Your task to perform on an android device: Clear all items from cart on walmart. Search for "razer blade" on walmart, select the first entry, and add it to the cart. Image 0: 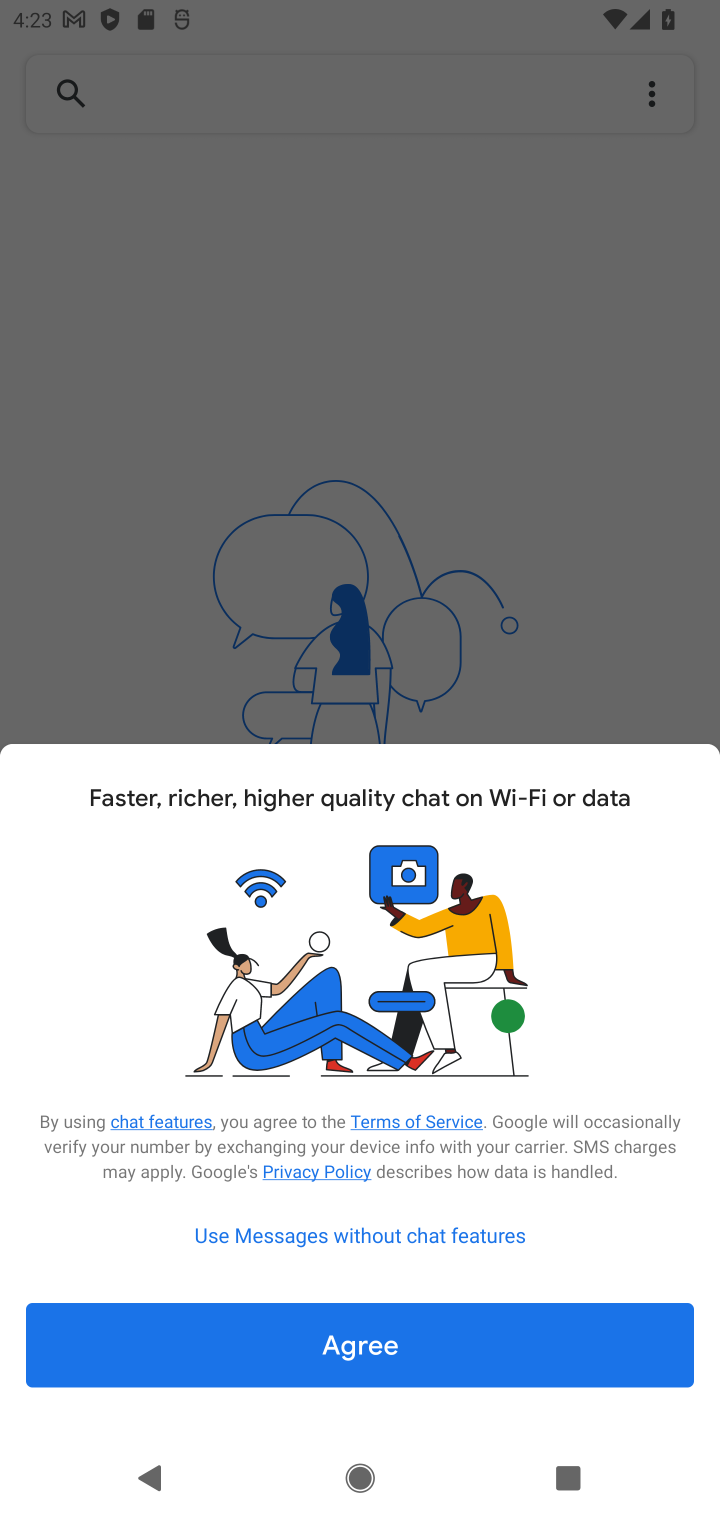
Step 0: press home button
Your task to perform on an android device: Clear all items from cart on walmart. Search for "razer blade" on walmart, select the first entry, and add it to the cart. Image 1: 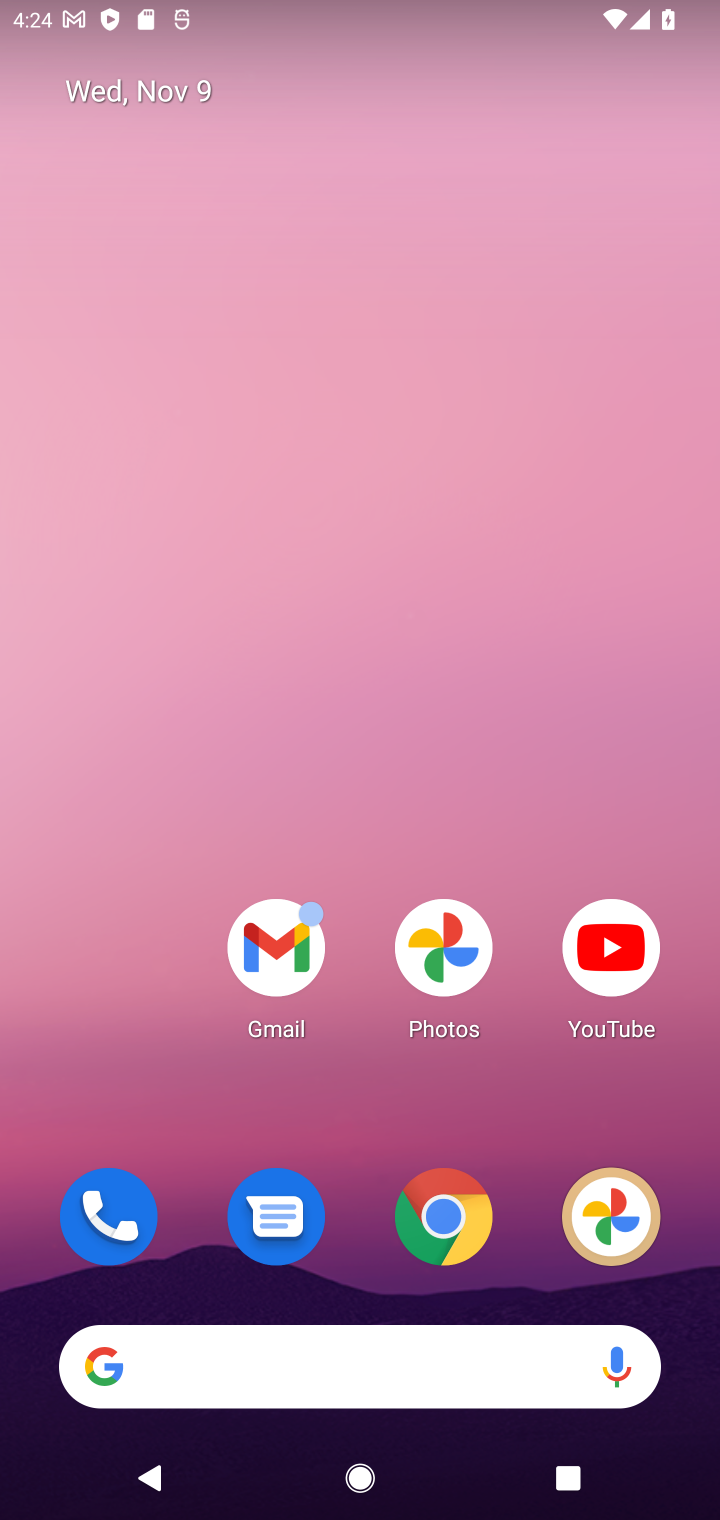
Step 1: drag from (357, 1118) to (551, 345)
Your task to perform on an android device: Clear all items from cart on walmart. Search for "razer blade" on walmart, select the first entry, and add it to the cart. Image 2: 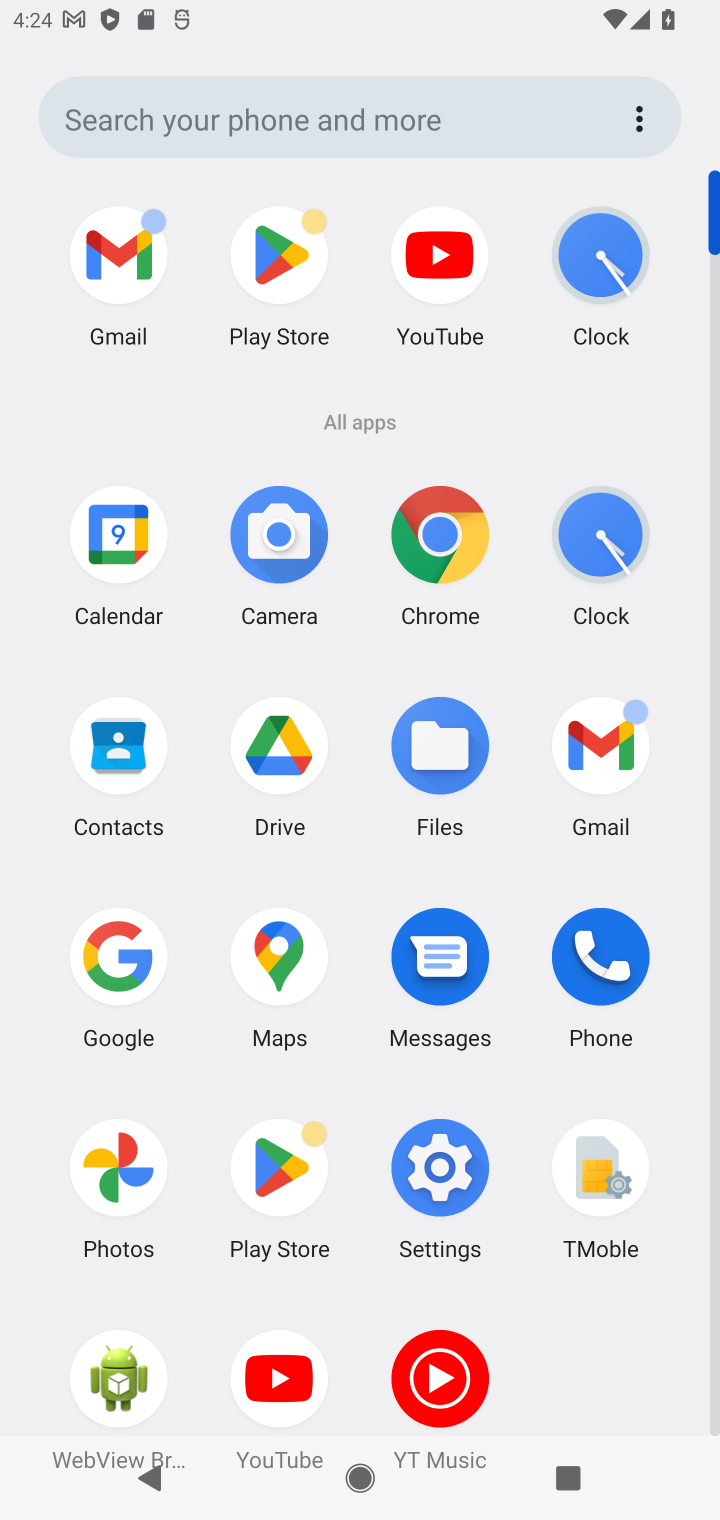
Step 2: click (443, 549)
Your task to perform on an android device: Clear all items from cart on walmart. Search for "razer blade" on walmart, select the first entry, and add it to the cart. Image 3: 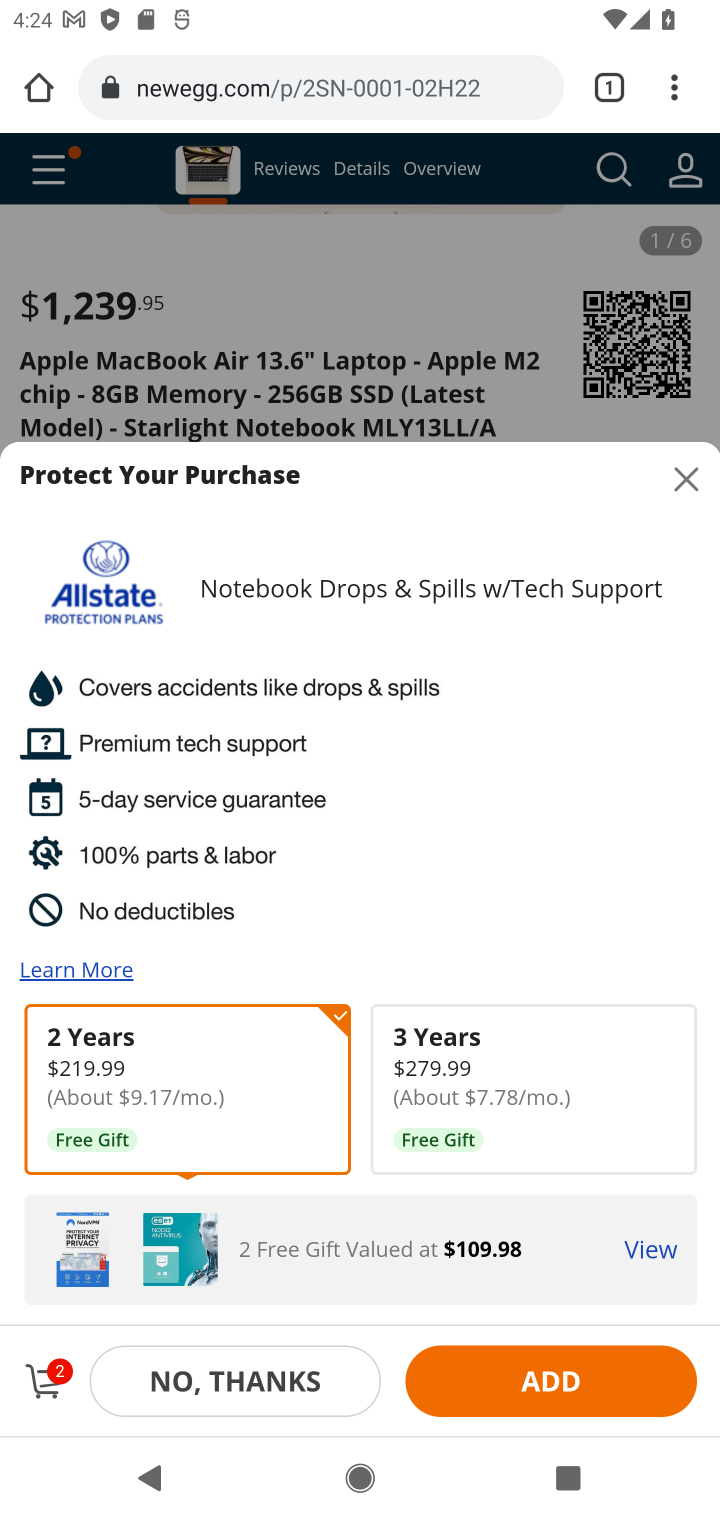
Step 3: click (399, 99)
Your task to perform on an android device: Clear all items from cart on walmart. Search for "razer blade" on walmart, select the first entry, and add it to the cart. Image 4: 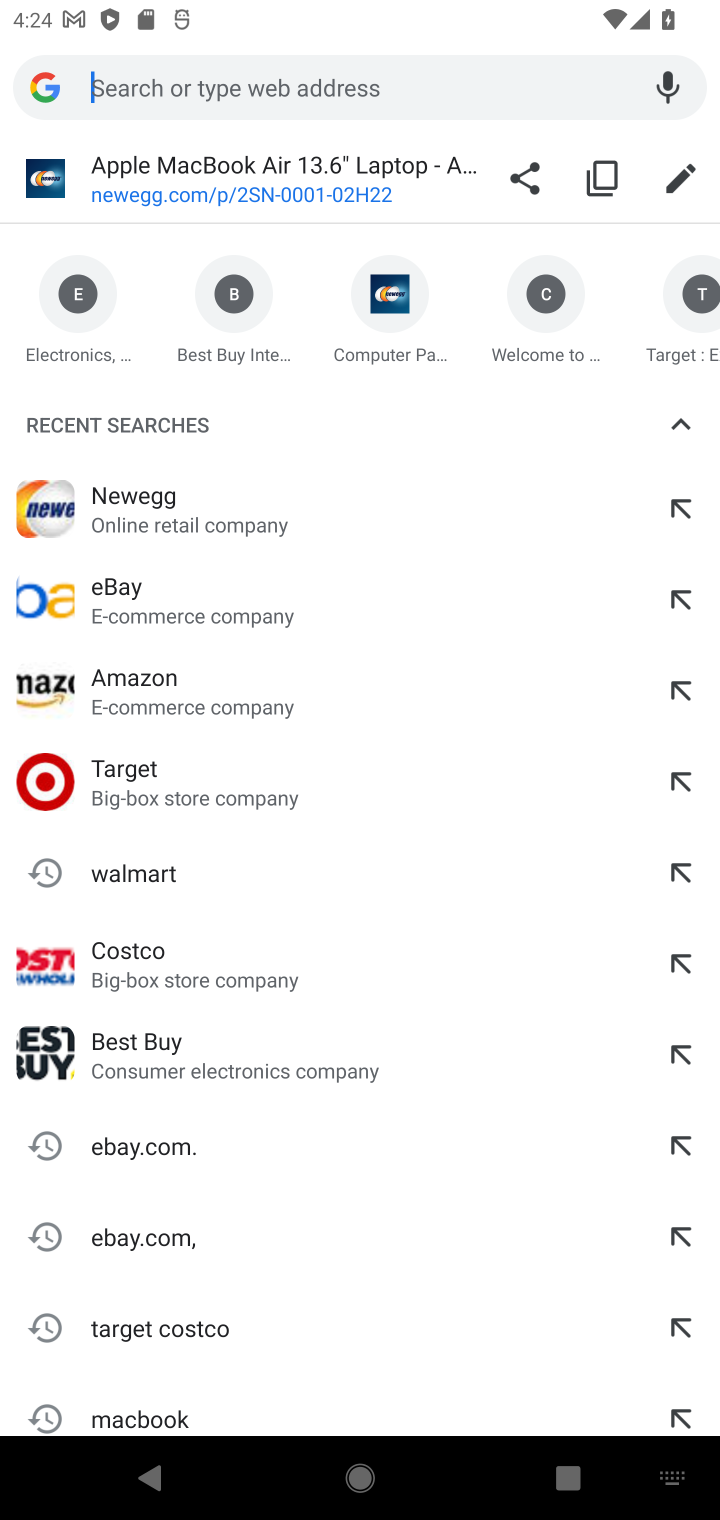
Step 4: type "walmart.com"
Your task to perform on an android device: Clear all items from cart on walmart. Search for "razer blade" on walmart, select the first entry, and add it to the cart. Image 5: 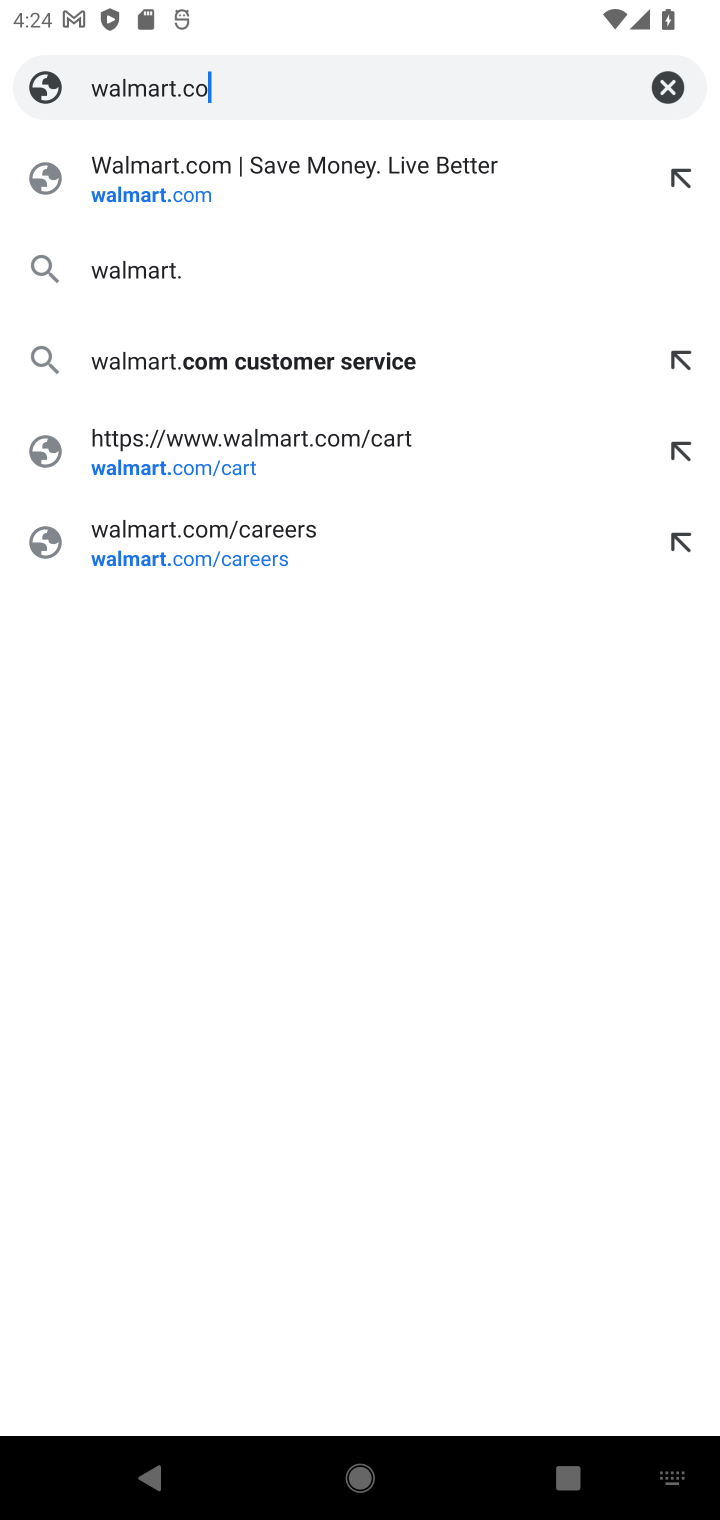
Step 5: press enter
Your task to perform on an android device: Clear all items from cart on walmart. Search for "razer blade" on walmart, select the first entry, and add it to the cart. Image 6: 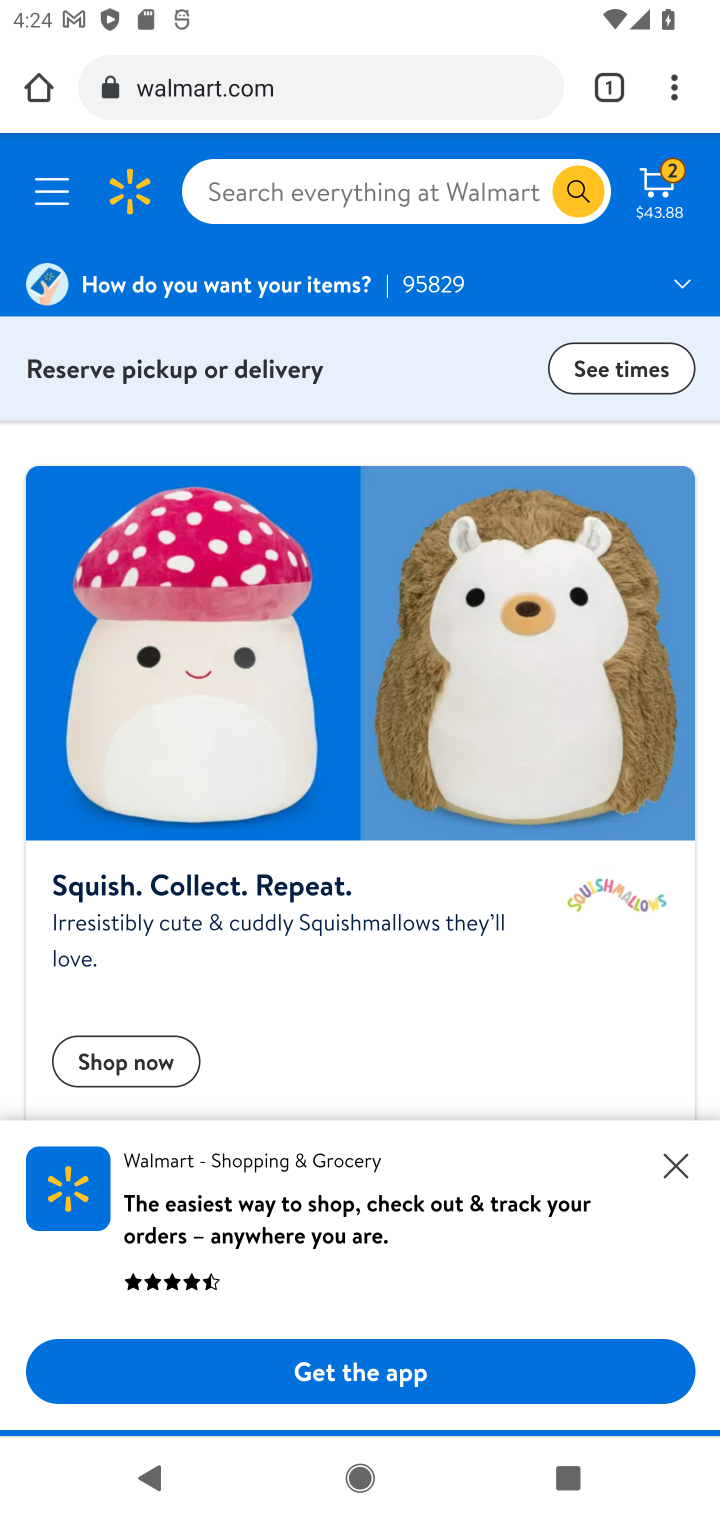
Step 6: click (671, 181)
Your task to perform on an android device: Clear all items from cart on walmart. Search for "razer blade" on walmart, select the first entry, and add it to the cart. Image 7: 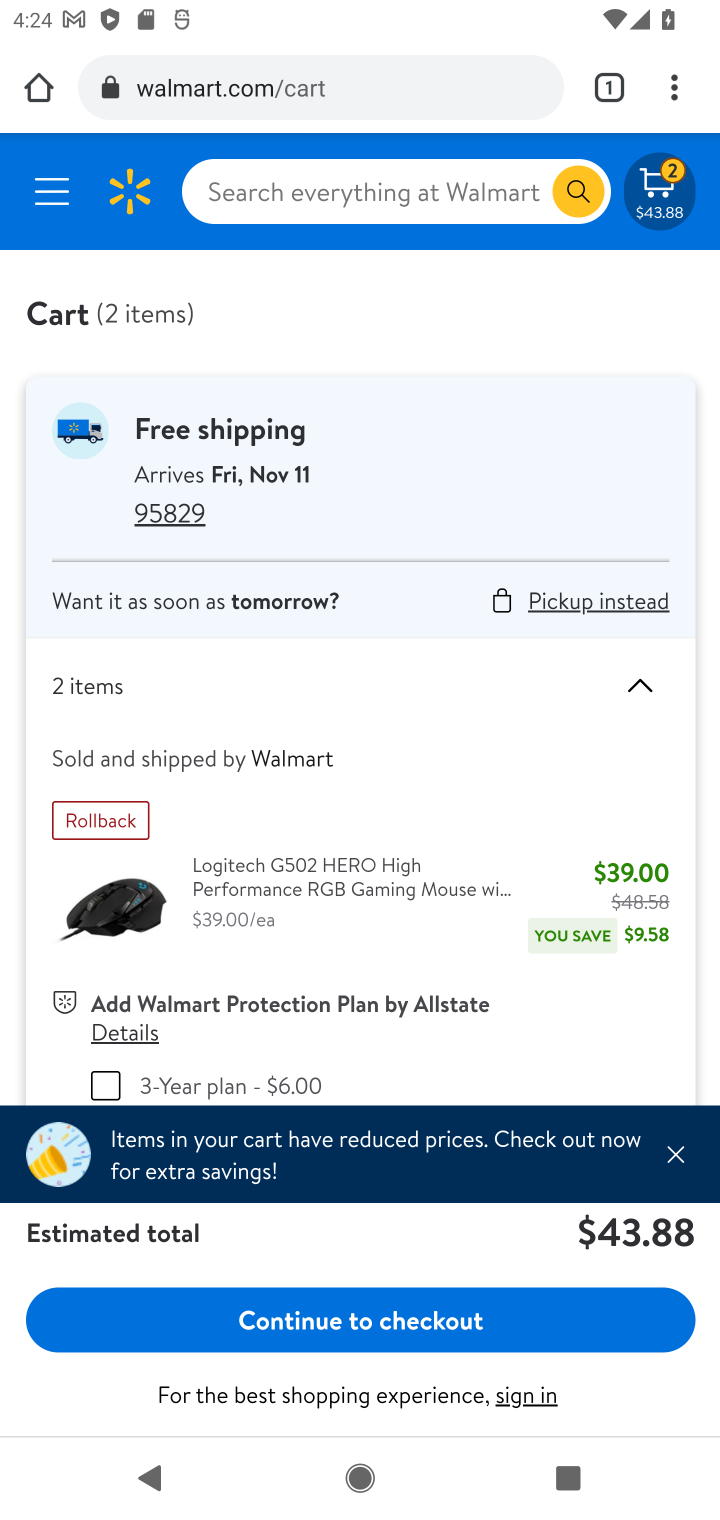
Step 7: drag from (465, 1013) to (446, 639)
Your task to perform on an android device: Clear all items from cart on walmart. Search for "razer blade" on walmart, select the first entry, and add it to the cart. Image 8: 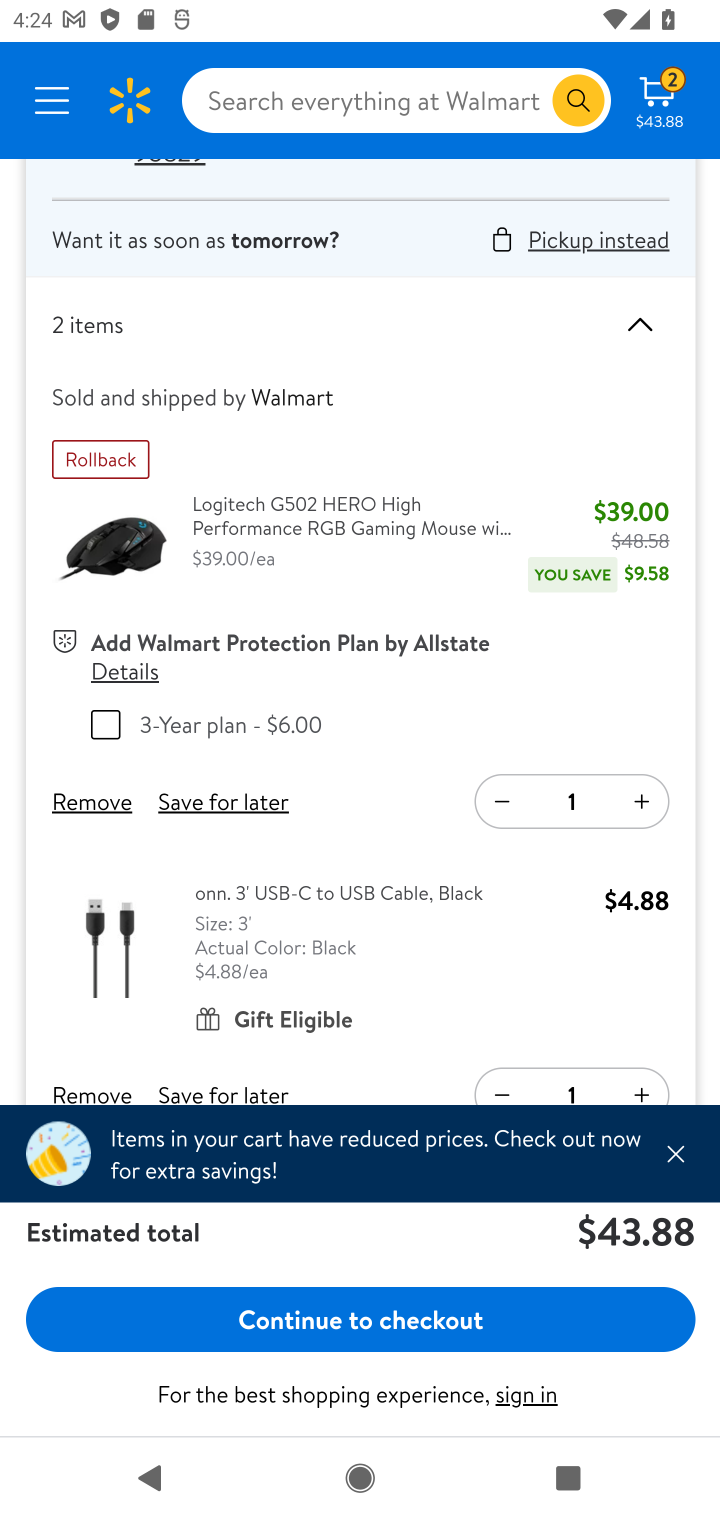
Step 8: click (101, 794)
Your task to perform on an android device: Clear all items from cart on walmart. Search for "razer blade" on walmart, select the first entry, and add it to the cart. Image 9: 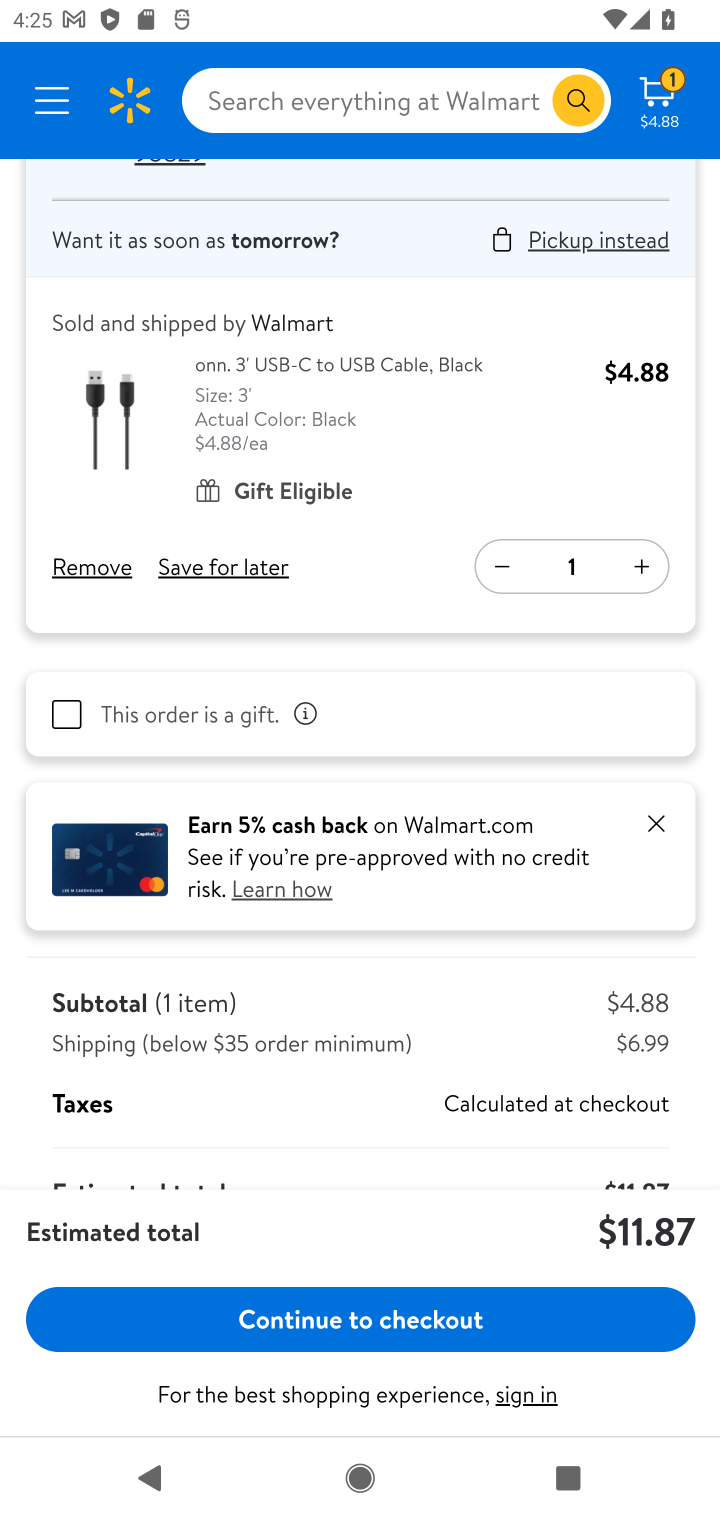
Step 9: click (96, 564)
Your task to perform on an android device: Clear all items from cart on walmart. Search for "razer blade" on walmart, select the first entry, and add it to the cart. Image 10: 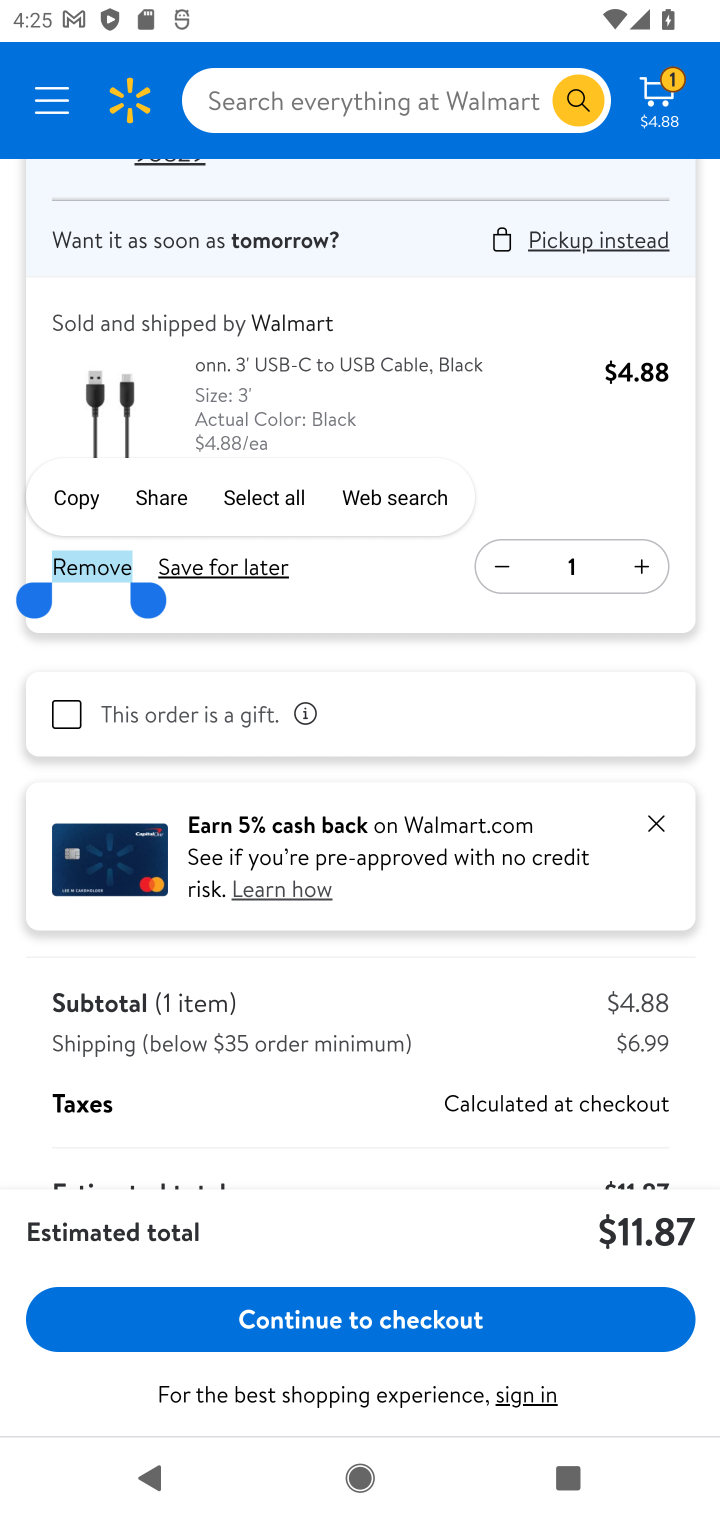
Step 10: click (96, 574)
Your task to perform on an android device: Clear all items from cart on walmart. Search for "razer blade" on walmart, select the first entry, and add it to the cart. Image 11: 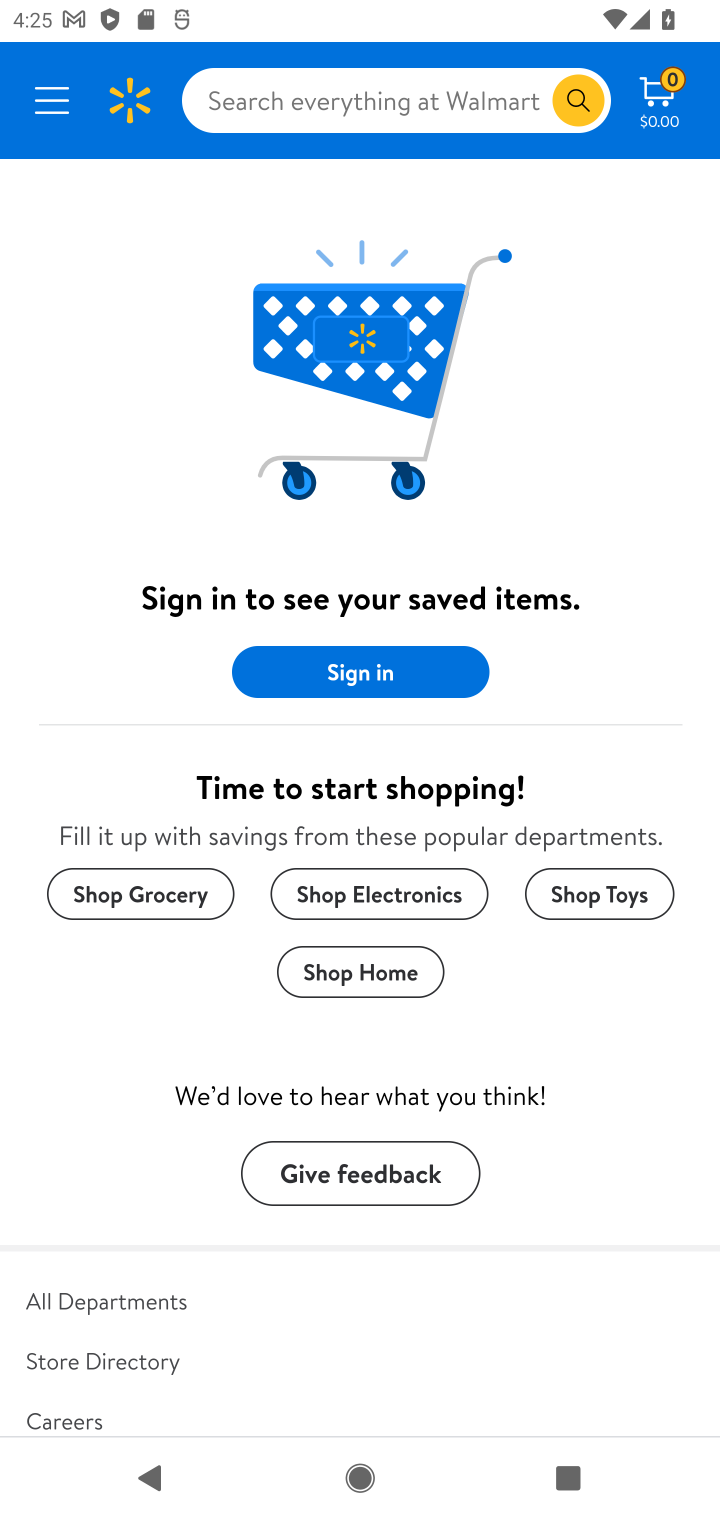
Step 11: click (416, 88)
Your task to perform on an android device: Clear all items from cart on walmart. Search for "razer blade" on walmart, select the first entry, and add it to the cart. Image 12: 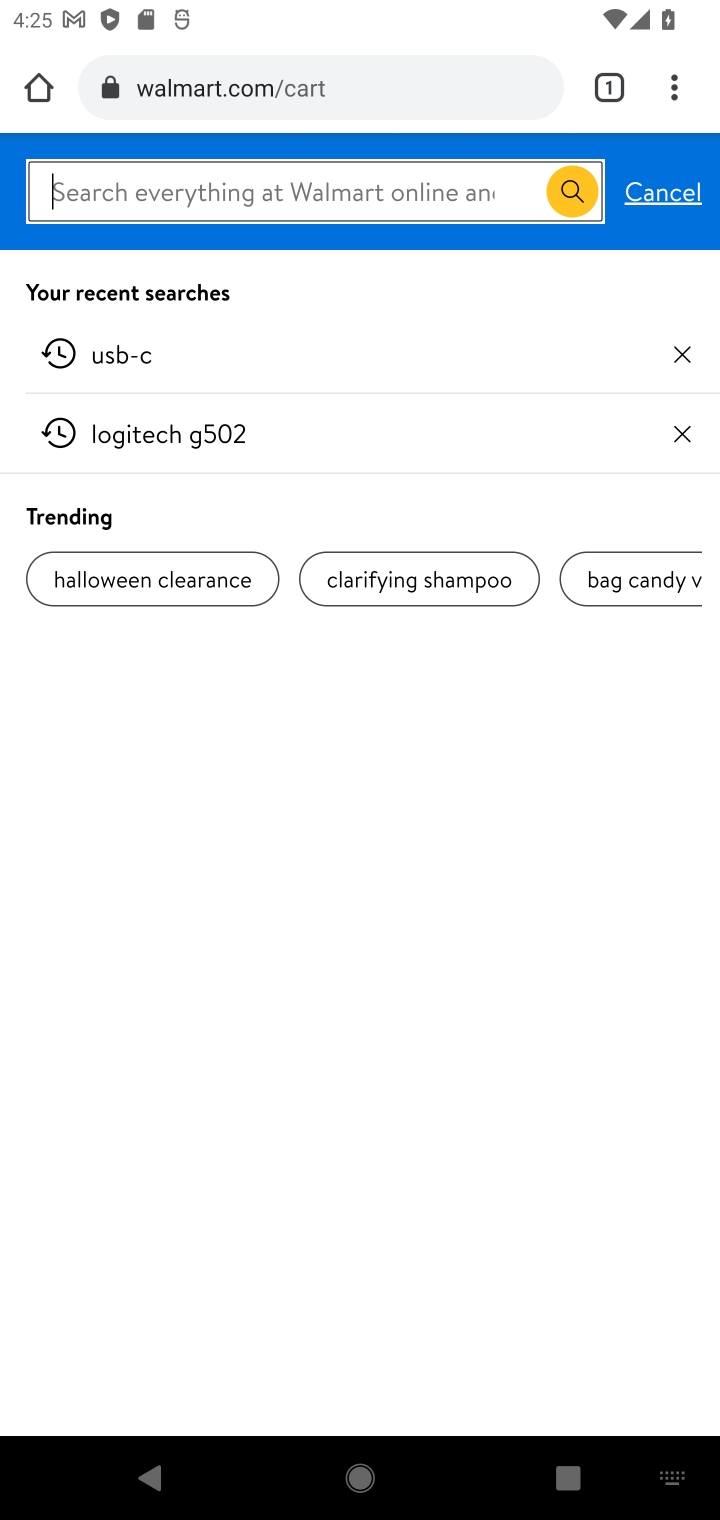
Step 12: type "razer blade"
Your task to perform on an android device: Clear all items from cart on walmart. Search for "razer blade" on walmart, select the first entry, and add it to the cart. Image 13: 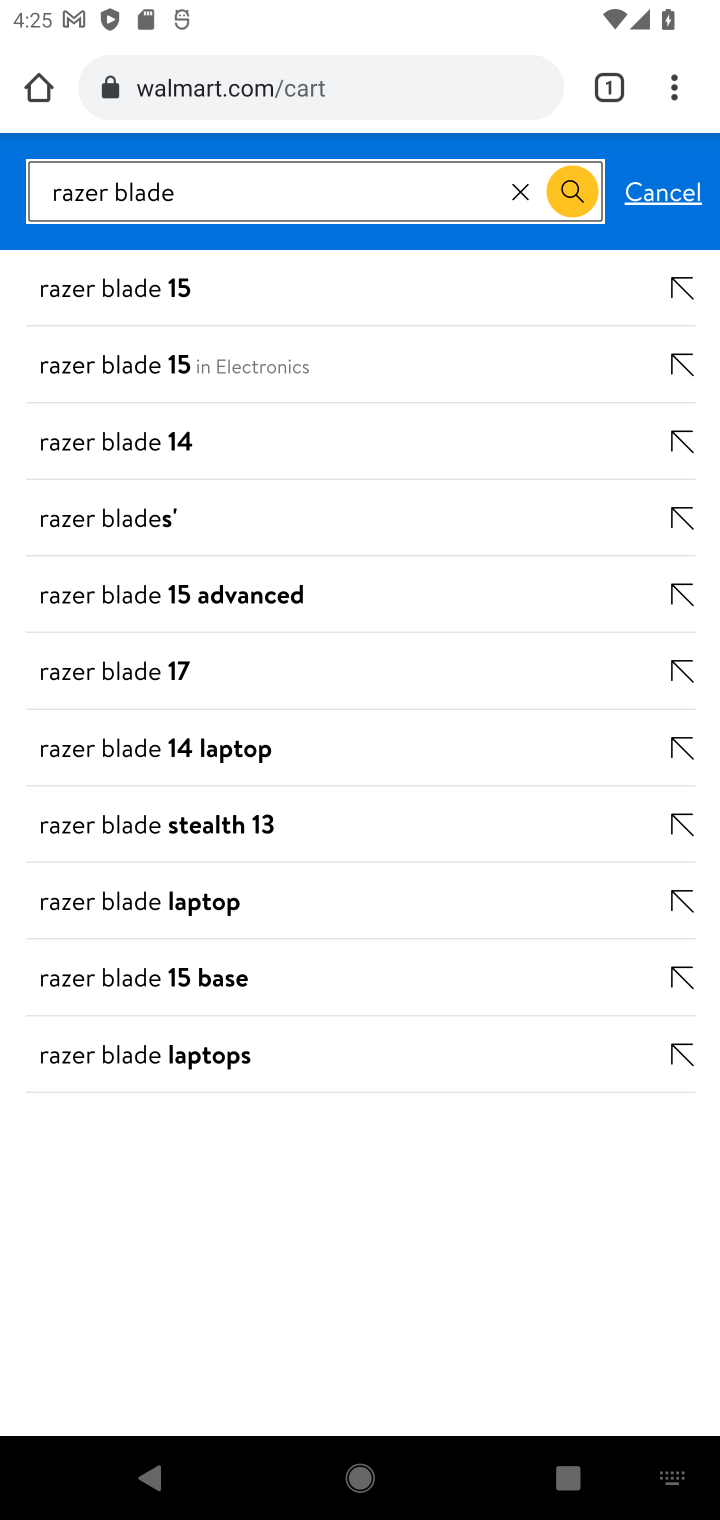
Step 13: press enter
Your task to perform on an android device: Clear all items from cart on walmart. Search for "razer blade" on walmart, select the first entry, and add it to the cart. Image 14: 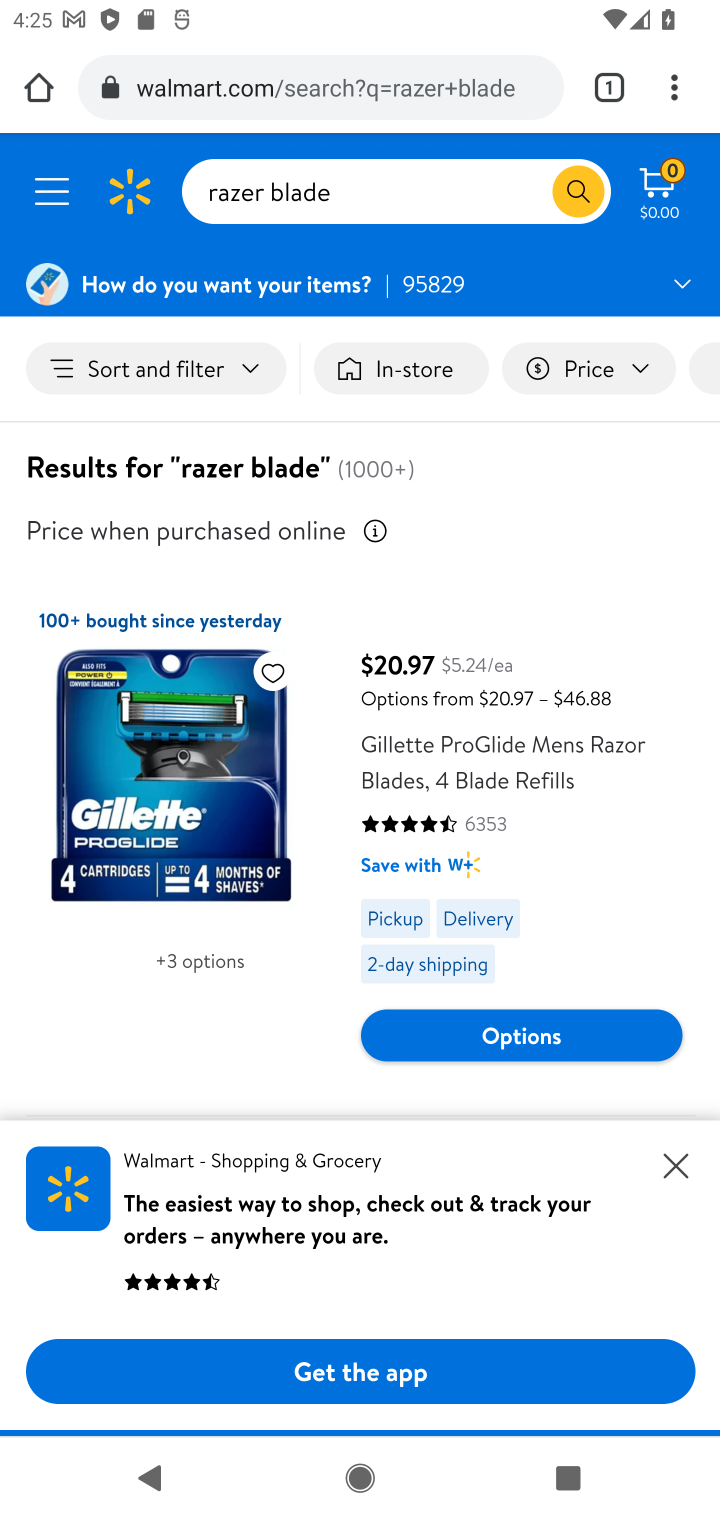
Step 14: task complete